Your task to perform on an android device: Go to notification settings Image 0: 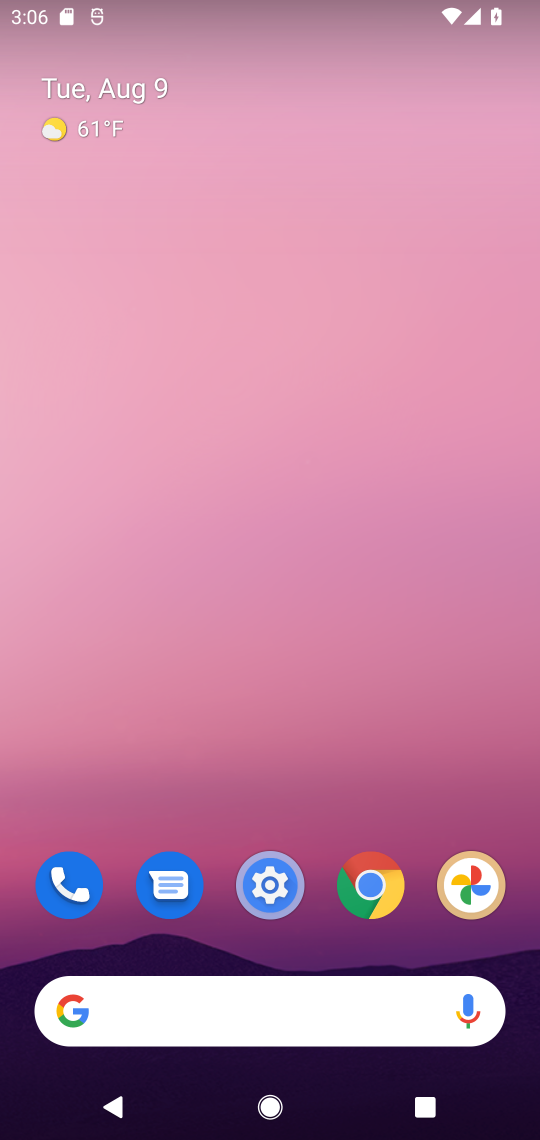
Step 0: click (266, 870)
Your task to perform on an android device: Go to notification settings Image 1: 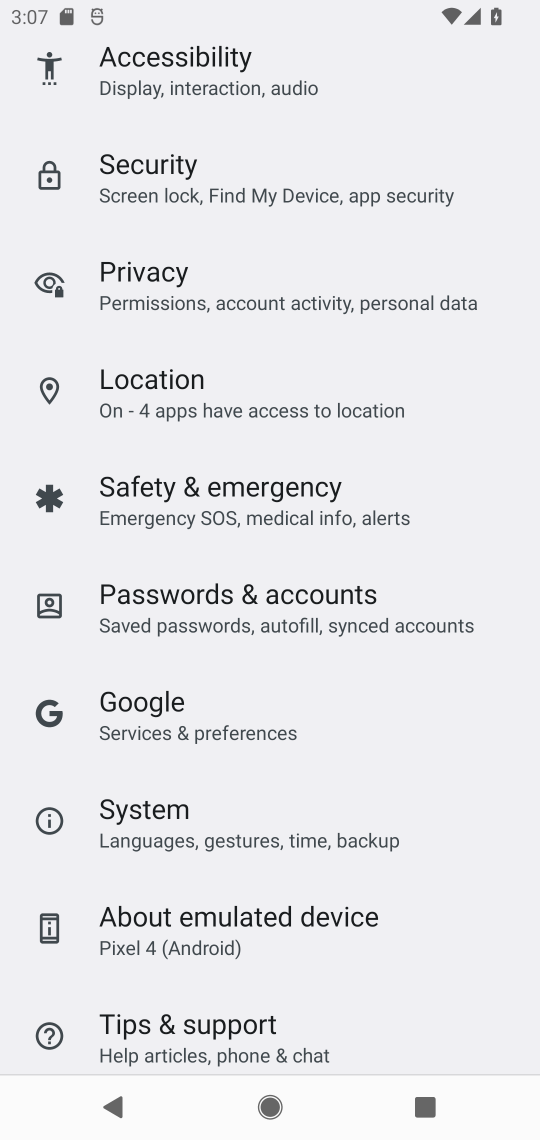
Step 1: task complete